Your task to perform on an android device: change the clock display to show seconds Image 0: 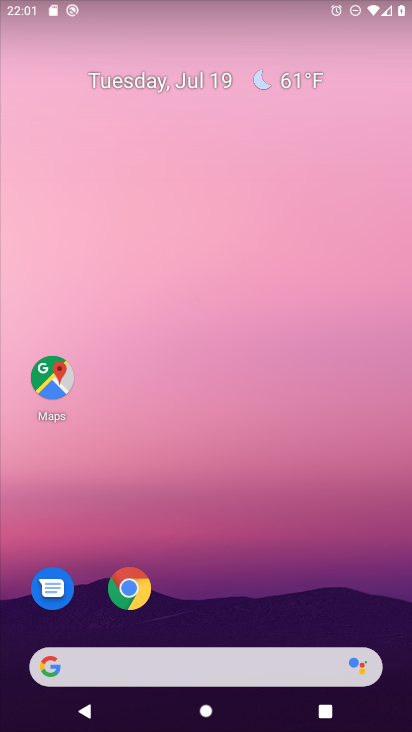
Step 0: drag from (227, 626) to (190, 49)
Your task to perform on an android device: change the clock display to show seconds Image 1: 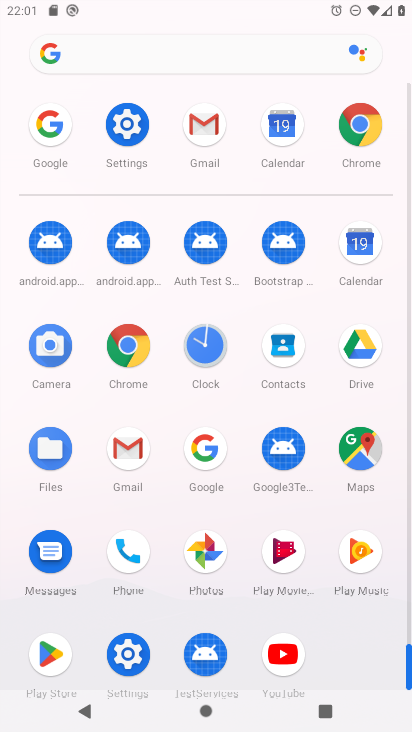
Step 1: click (202, 336)
Your task to perform on an android device: change the clock display to show seconds Image 2: 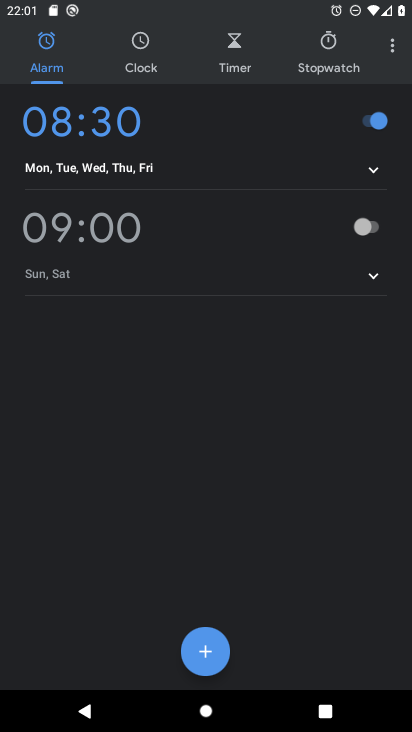
Step 2: click (393, 45)
Your task to perform on an android device: change the clock display to show seconds Image 3: 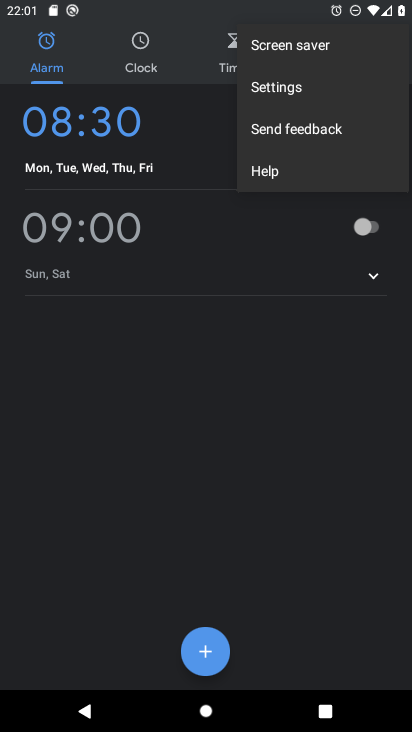
Step 3: click (306, 83)
Your task to perform on an android device: change the clock display to show seconds Image 4: 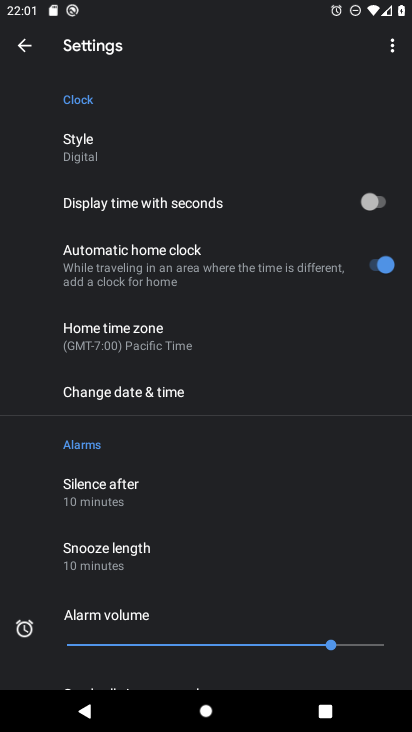
Step 4: click (369, 200)
Your task to perform on an android device: change the clock display to show seconds Image 5: 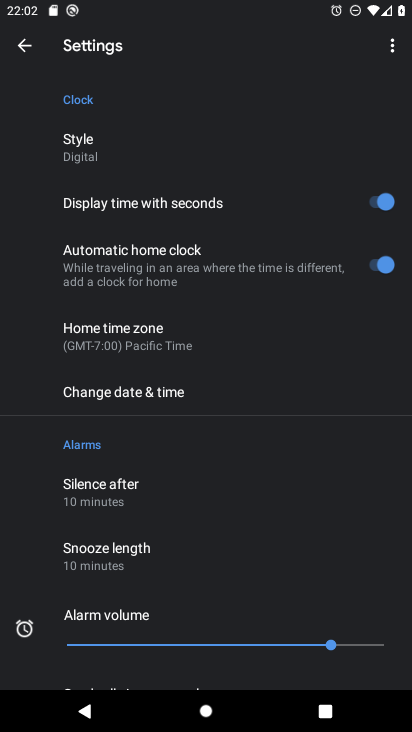
Step 5: task complete